Your task to perform on an android device: Open Chrome and go to the settings page Image 0: 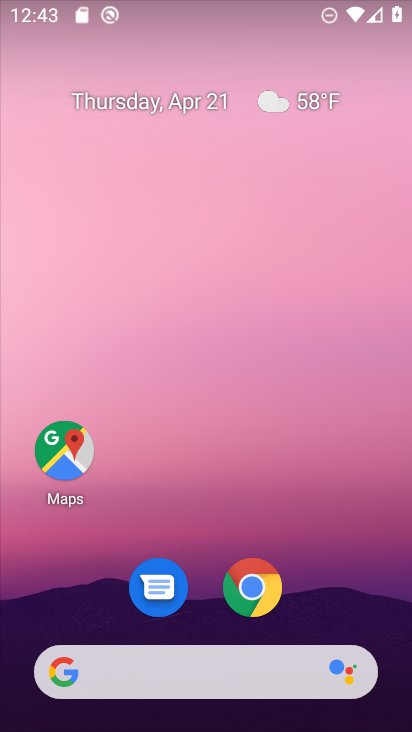
Step 0: click (216, 325)
Your task to perform on an android device: Open Chrome and go to the settings page Image 1: 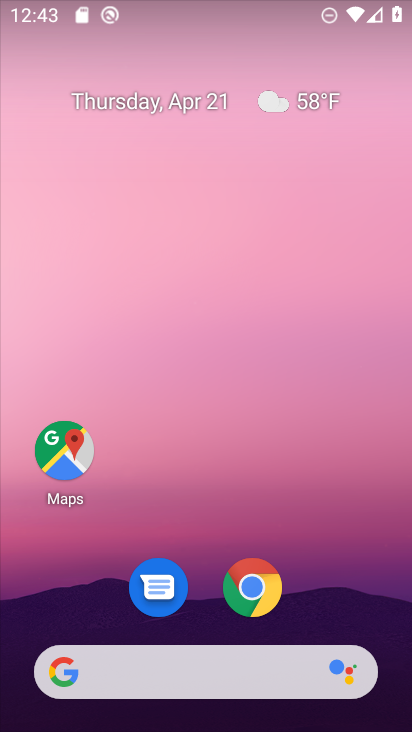
Step 1: click (254, 579)
Your task to perform on an android device: Open Chrome and go to the settings page Image 2: 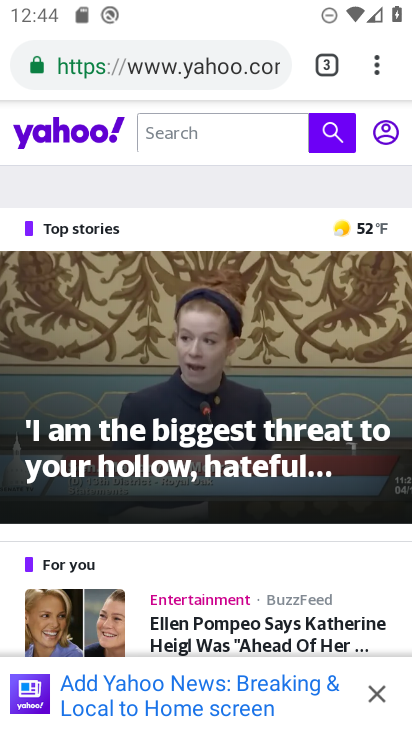
Step 2: click (373, 79)
Your task to perform on an android device: Open Chrome and go to the settings page Image 3: 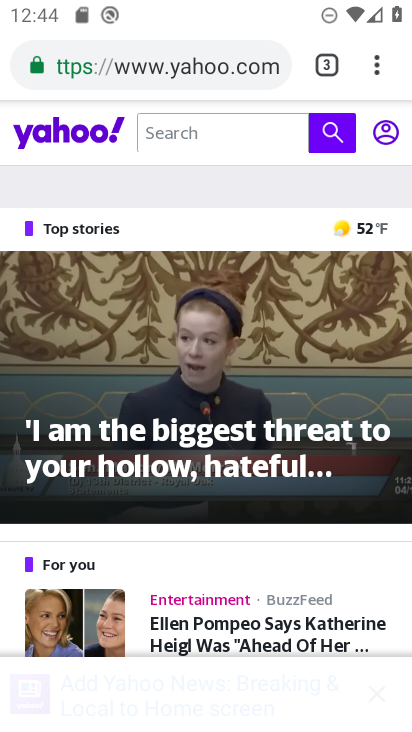
Step 3: click (381, 71)
Your task to perform on an android device: Open Chrome and go to the settings page Image 4: 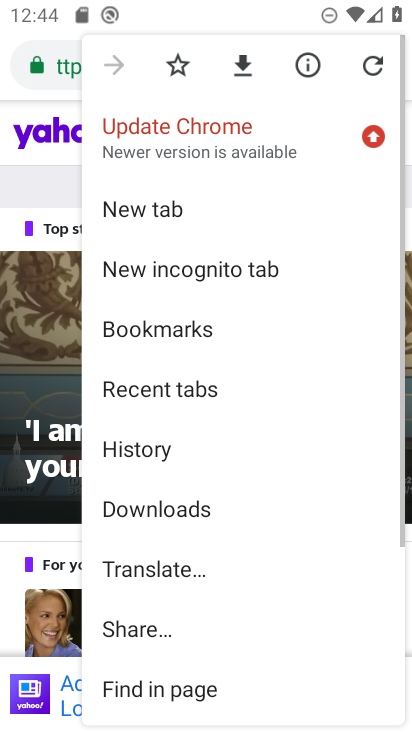
Step 4: drag from (214, 507) to (254, 152)
Your task to perform on an android device: Open Chrome and go to the settings page Image 5: 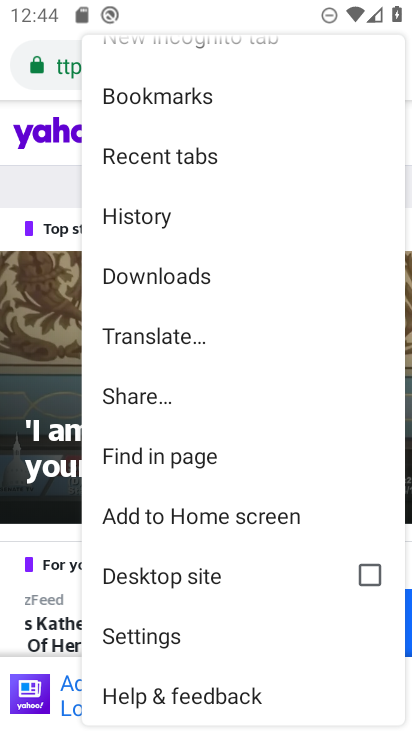
Step 5: click (169, 642)
Your task to perform on an android device: Open Chrome and go to the settings page Image 6: 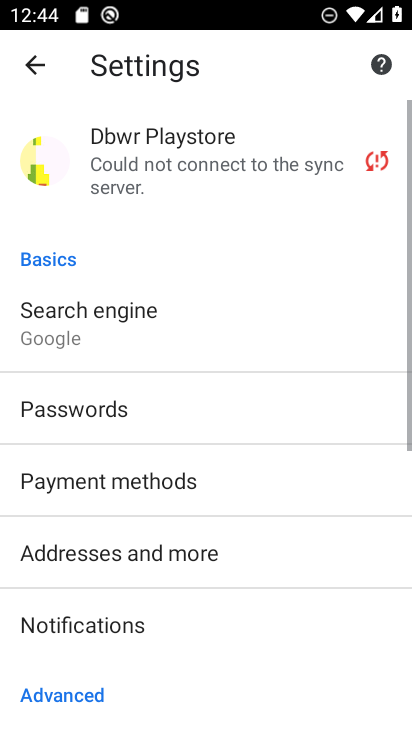
Step 6: task complete